Your task to perform on an android device: Open location settings Image 0: 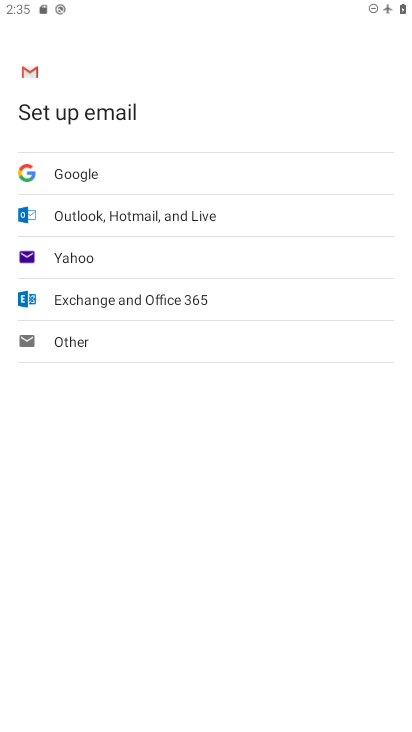
Step 0: press home button
Your task to perform on an android device: Open location settings Image 1: 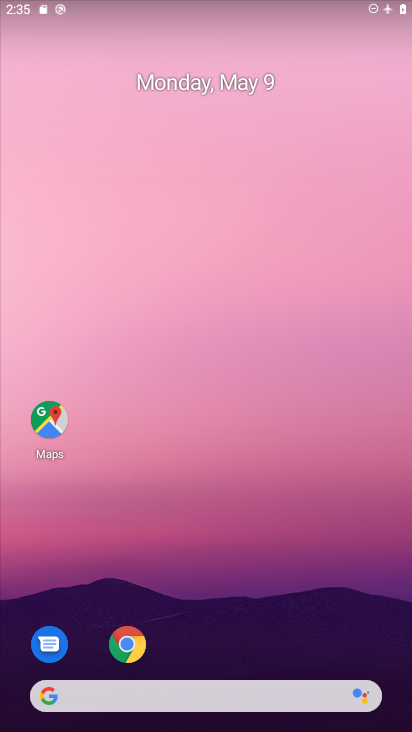
Step 1: drag from (261, 627) to (170, 166)
Your task to perform on an android device: Open location settings Image 2: 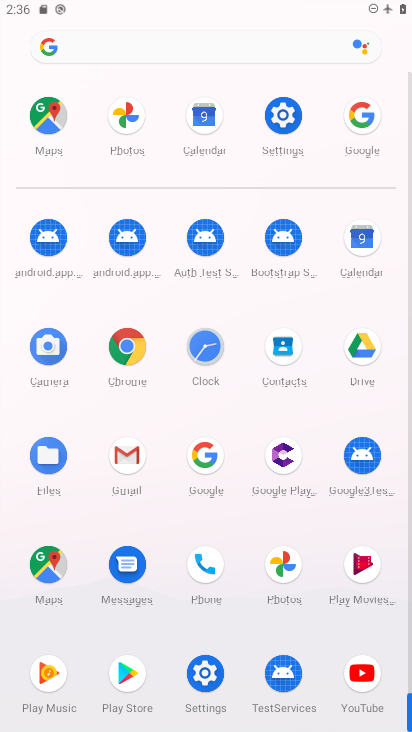
Step 2: click (202, 678)
Your task to perform on an android device: Open location settings Image 3: 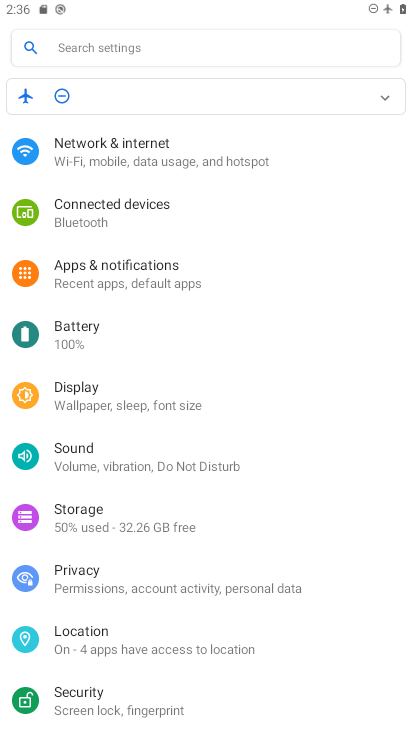
Step 3: drag from (154, 640) to (144, 273)
Your task to perform on an android device: Open location settings Image 4: 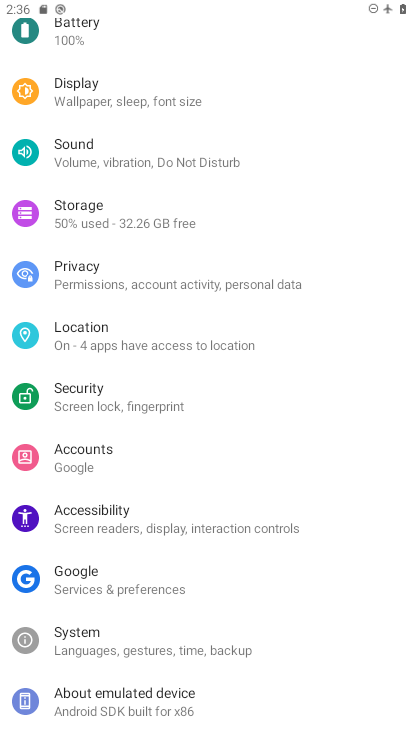
Step 4: click (105, 350)
Your task to perform on an android device: Open location settings Image 5: 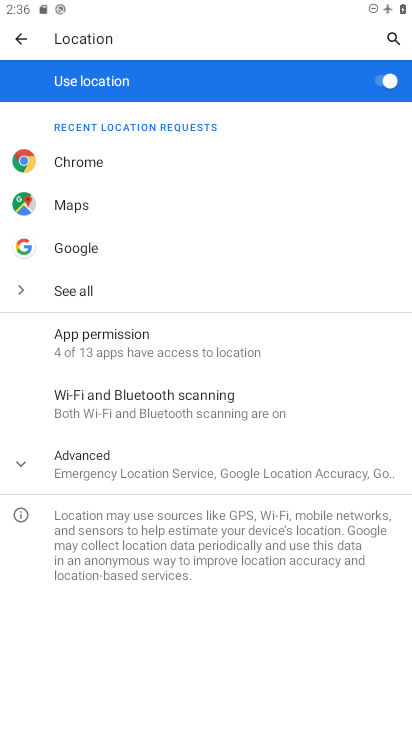
Step 5: task complete